Your task to perform on an android device: Go to eBay Image 0: 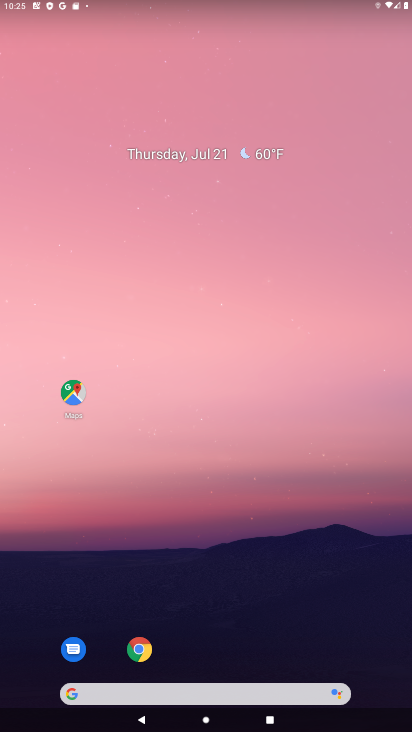
Step 0: click (139, 649)
Your task to perform on an android device: Go to eBay Image 1: 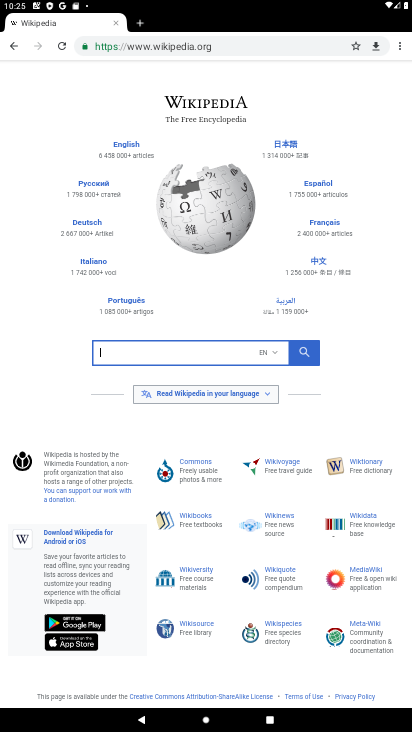
Step 1: click (284, 43)
Your task to perform on an android device: Go to eBay Image 2: 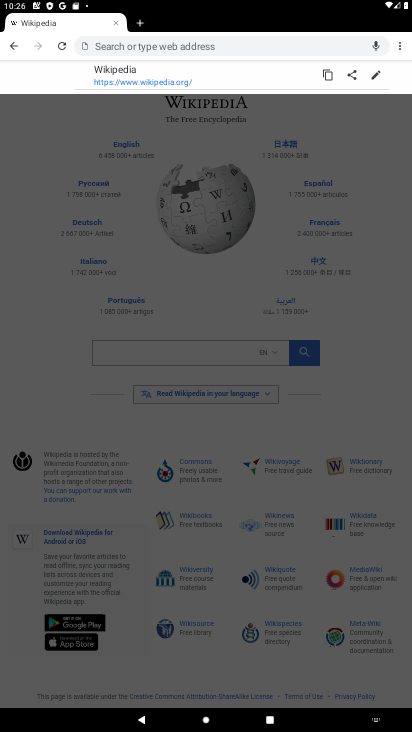
Step 2: type "eBay"
Your task to perform on an android device: Go to eBay Image 3: 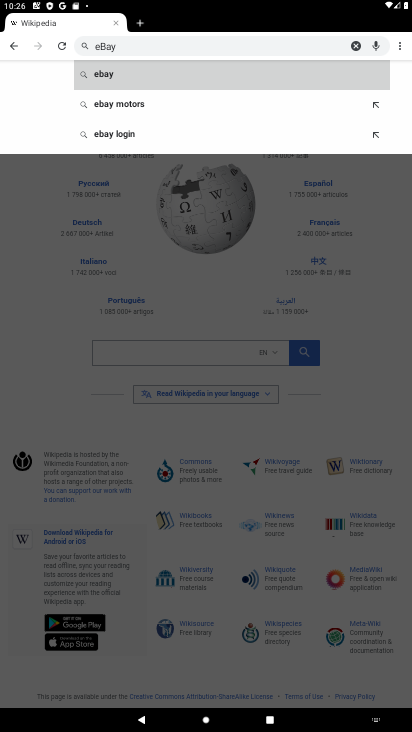
Step 3: click (135, 74)
Your task to perform on an android device: Go to eBay Image 4: 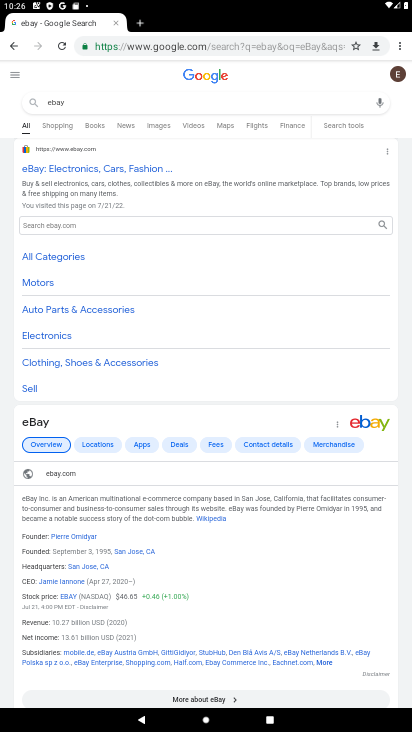
Step 4: click (101, 174)
Your task to perform on an android device: Go to eBay Image 5: 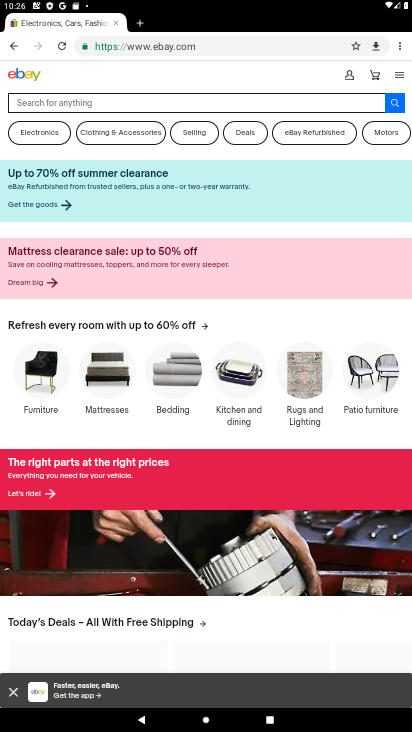
Step 5: task complete